Your task to perform on an android device: Open calendar and show me the fourth week of next month Image 0: 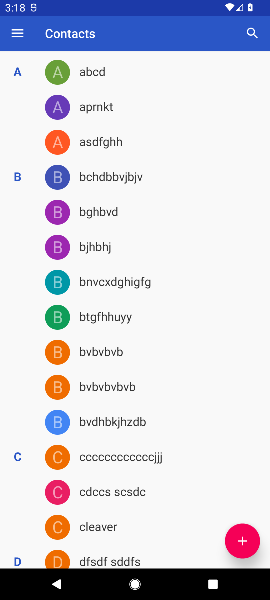
Step 0: press home button
Your task to perform on an android device: Open calendar and show me the fourth week of next month Image 1: 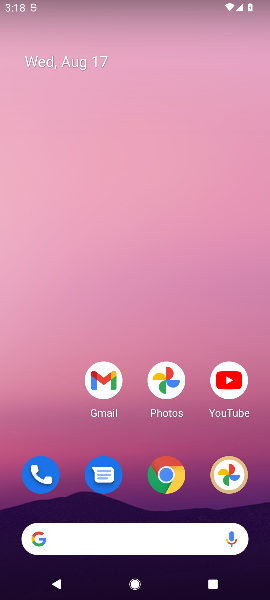
Step 1: drag from (135, 507) to (112, 0)
Your task to perform on an android device: Open calendar and show me the fourth week of next month Image 2: 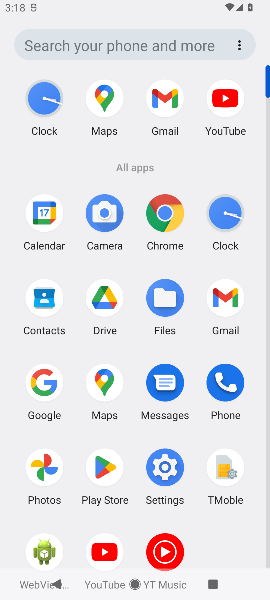
Step 2: click (45, 213)
Your task to perform on an android device: Open calendar and show me the fourth week of next month Image 3: 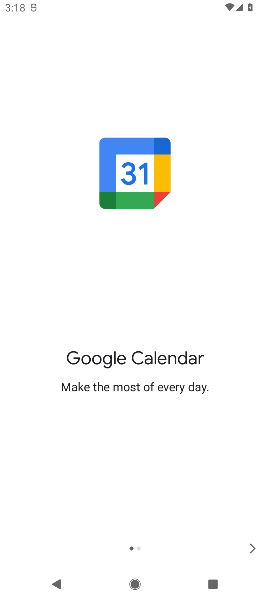
Step 3: click (248, 544)
Your task to perform on an android device: Open calendar and show me the fourth week of next month Image 4: 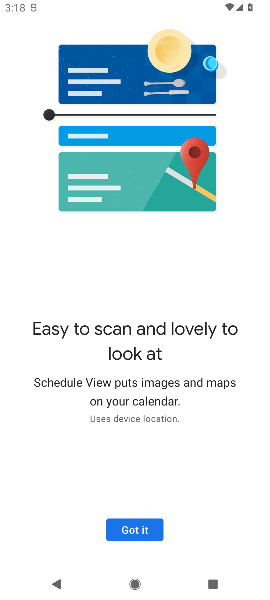
Step 4: click (126, 526)
Your task to perform on an android device: Open calendar and show me the fourth week of next month Image 5: 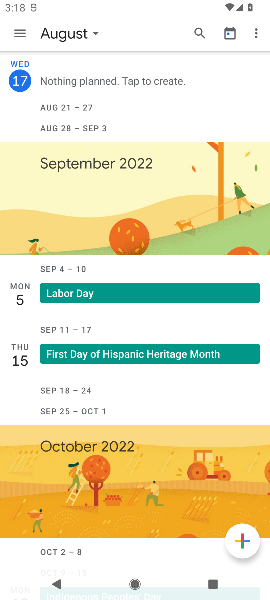
Step 5: click (20, 41)
Your task to perform on an android device: Open calendar and show me the fourth week of next month Image 6: 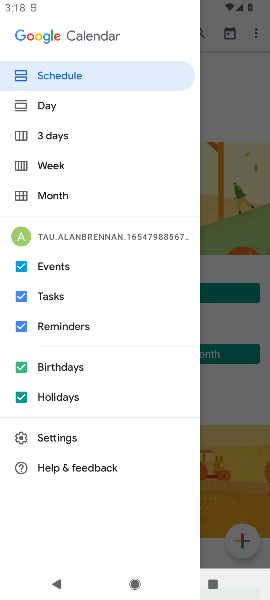
Step 6: click (47, 164)
Your task to perform on an android device: Open calendar and show me the fourth week of next month Image 7: 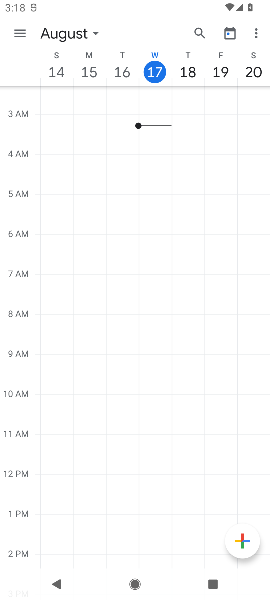
Step 7: task complete